Your task to perform on an android device: Go to wifi settings Image 0: 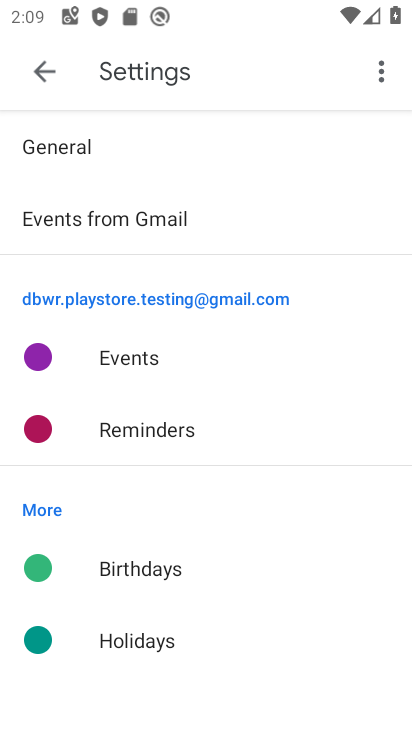
Step 0: press home button
Your task to perform on an android device: Go to wifi settings Image 1: 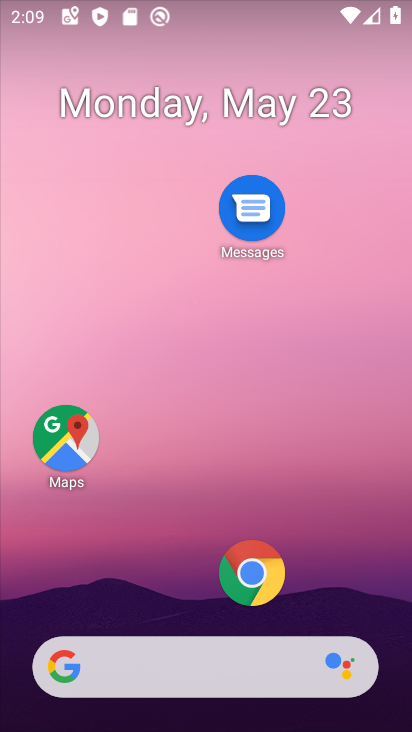
Step 1: drag from (281, 677) to (303, 98)
Your task to perform on an android device: Go to wifi settings Image 2: 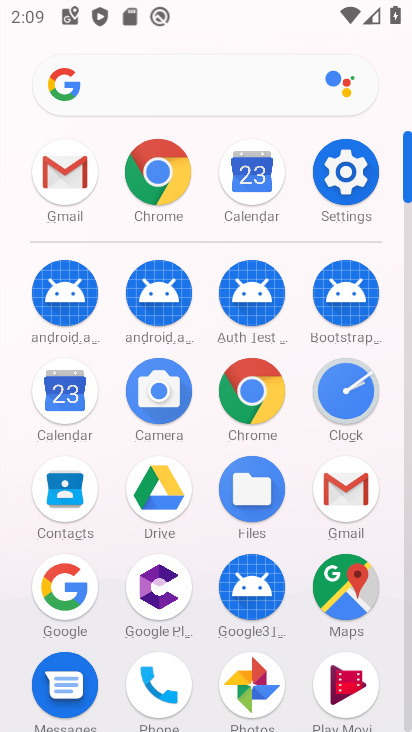
Step 2: click (344, 170)
Your task to perform on an android device: Go to wifi settings Image 3: 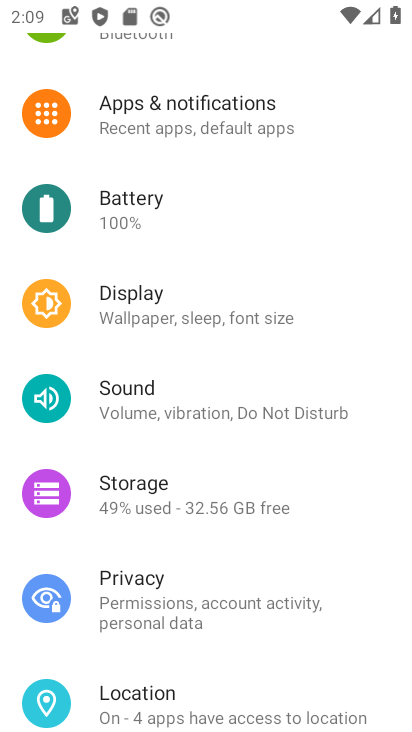
Step 3: drag from (245, 183) to (309, 561)
Your task to perform on an android device: Go to wifi settings Image 4: 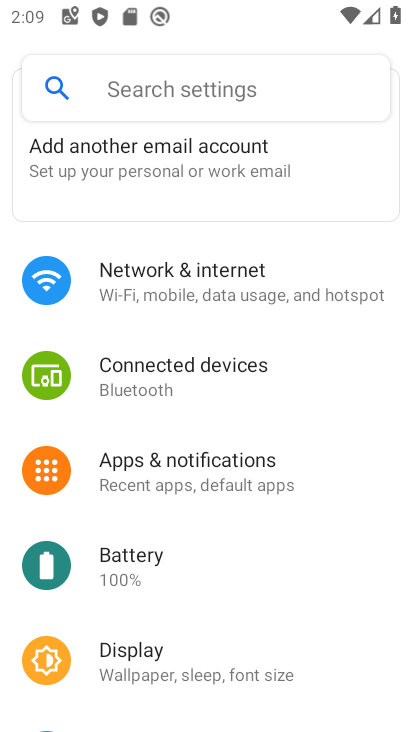
Step 4: click (213, 295)
Your task to perform on an android device: Go to wifi settings Image 5: 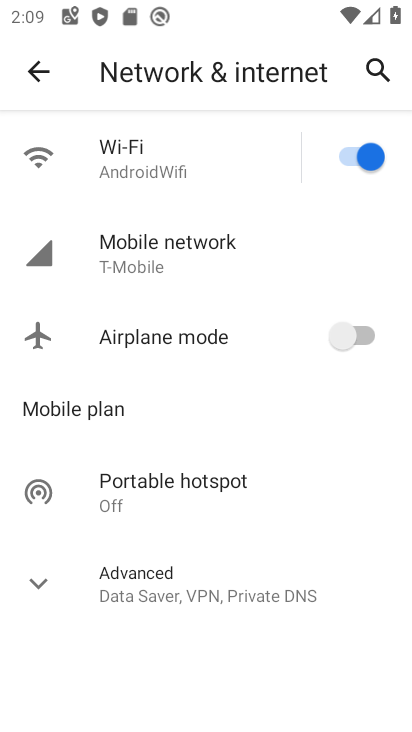
Step 5: click (173, 162)
Your task to perform on an android device: Go to wifi settings Image 6: 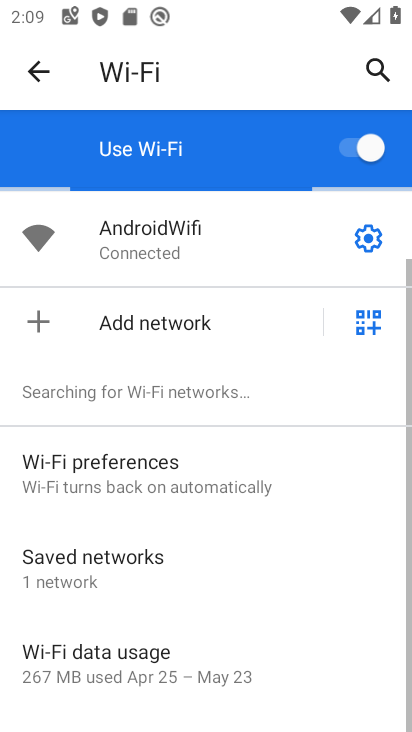
Step 6: task complete